Your task to perform on an android device: change keyboard looks Image 0: 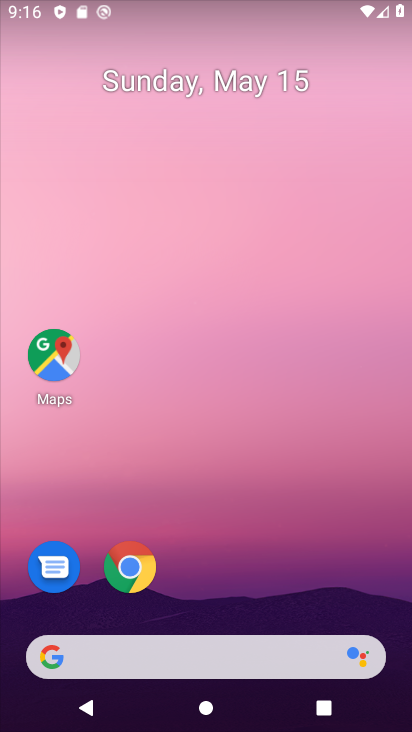
Step 0: drag from (320, 620) to (334, 116)
Your task to perform on an android device: change keyboard looks Image 1: 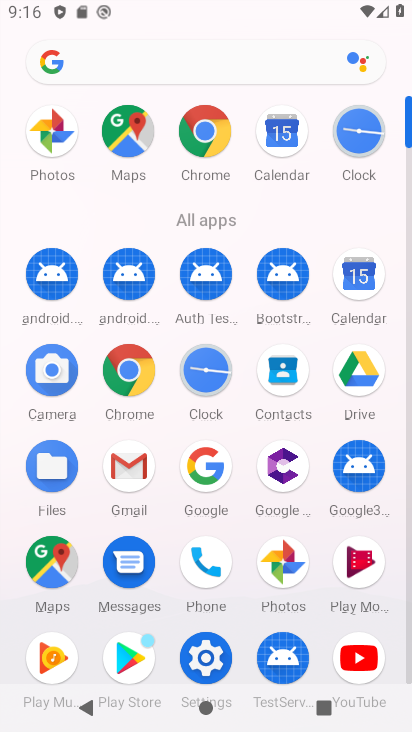
Step 1: click (196, 646)
Your task to perform on an android device: change keyboard looks Image 2: 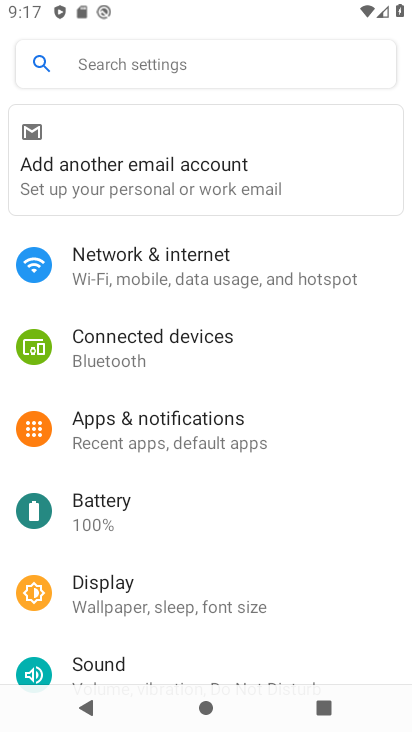
Step 2: drag from (247, 597) to (233, 122)
Your task to perform on an android device: change keyboard looks Image 3: 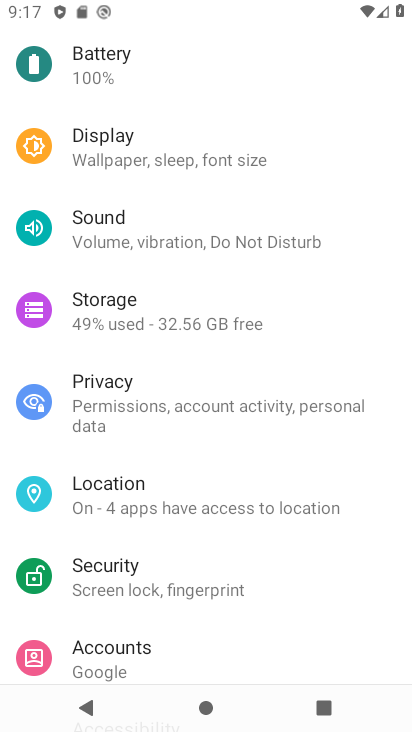
Step 3: drag from (221, 678) to (189, 177)
Your task to perform on an android device: change keyboard looks Image 4: 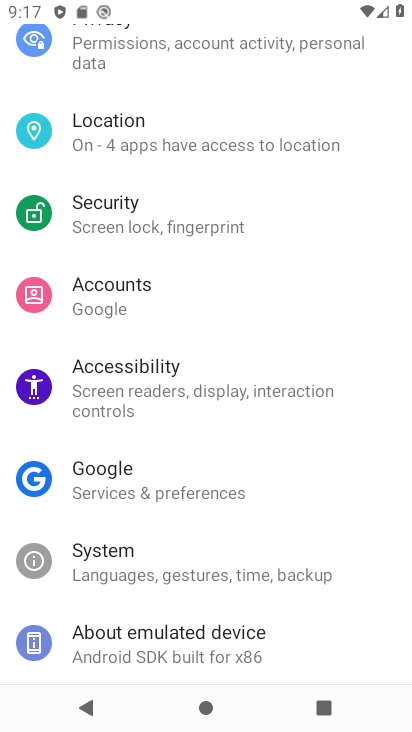
Step 4: drag from (254, 629) to (228, 148)
Your task to perform on an android device: change keyboard looks Image 5: 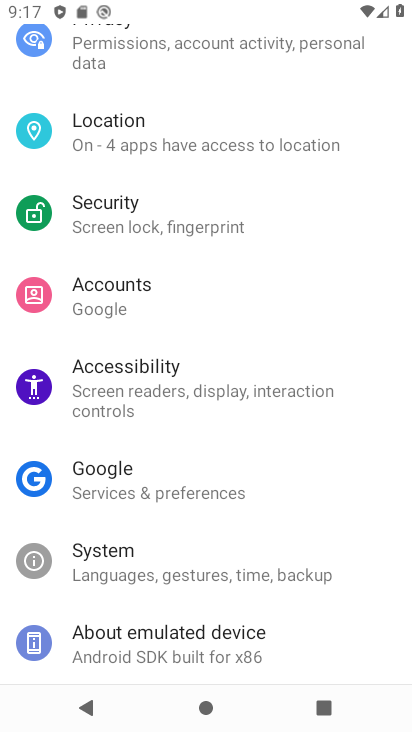
Step 5: click (190, 565)
Your task to perform on an android device: change keyboard looks Image 6: 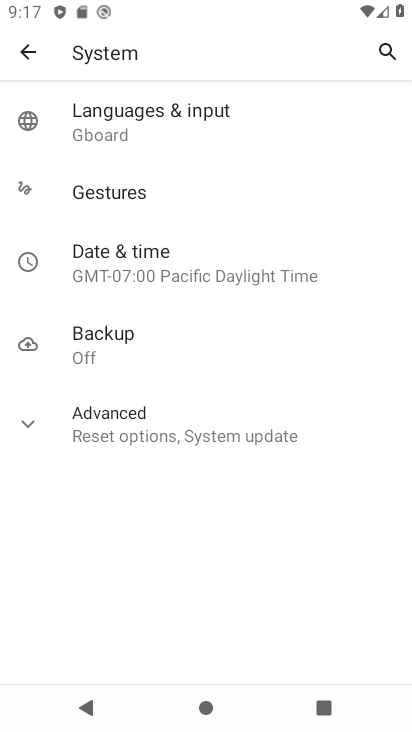
Step 6: click (163, 106)
Your task to perform on an android device: change keyboard looks Image 7: 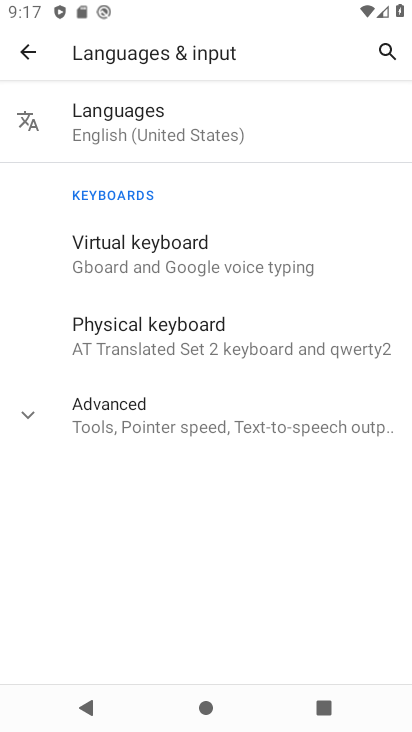
Step 7: click (163, 262)
Your task to perform on an android device: change keyboard looks Image 8: 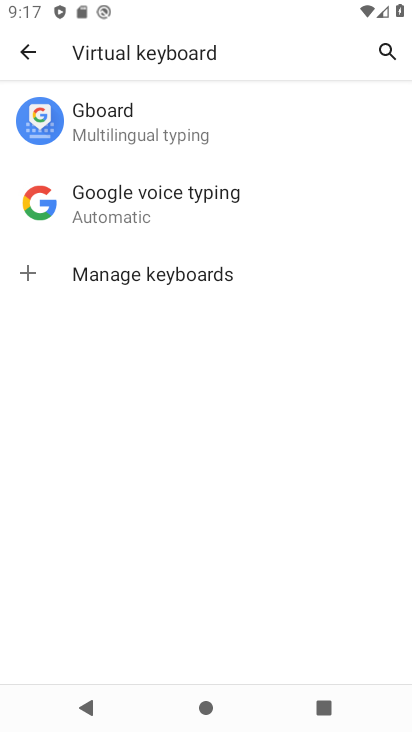
Step 8: click (166, 115)
Your task to perform on an android device: change keyboard looks Image 9: 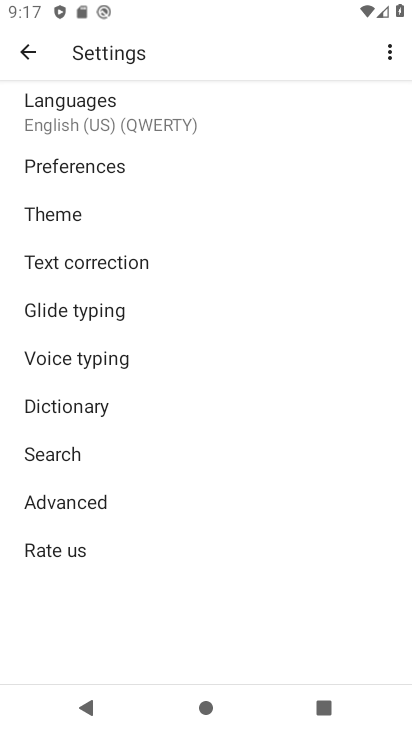
Step 9: click (120, 212)
Your task to perform on an android device: change keyboard looks Image 10: 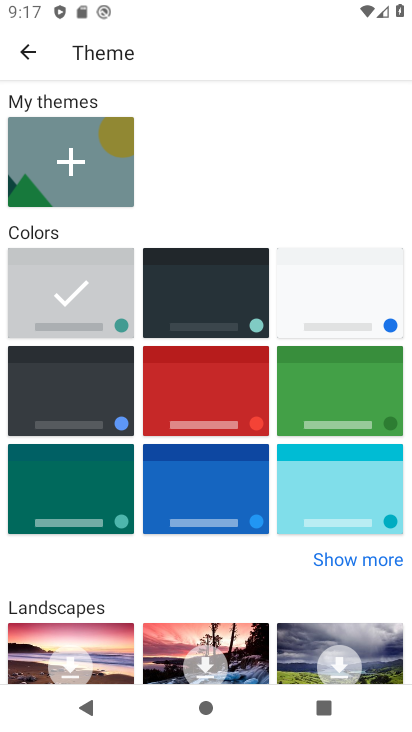
Step 10: click (219, 324)
Your task to perform on an android device: change keyboard looks Image 11: 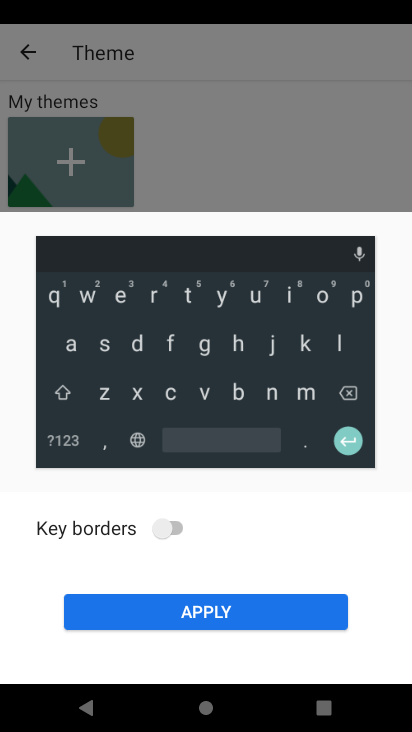
Step 11: click (292, 617)
Your task to perform on an android device: change keyboard looks Image 12: 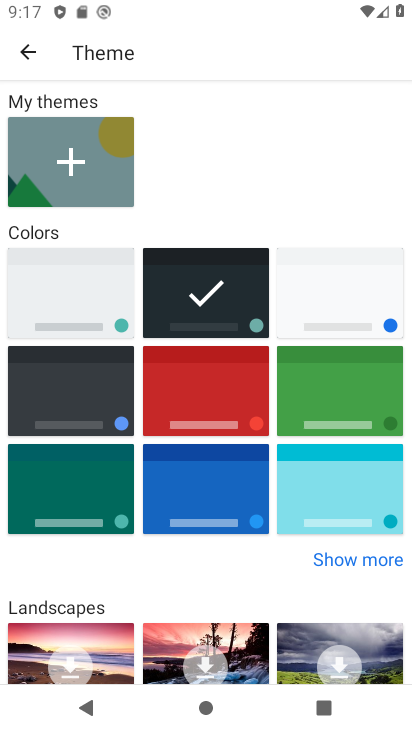
Step 12: task complete